Your task to perform on an android device: Open Youtube and go to "Your channel" Image 0: 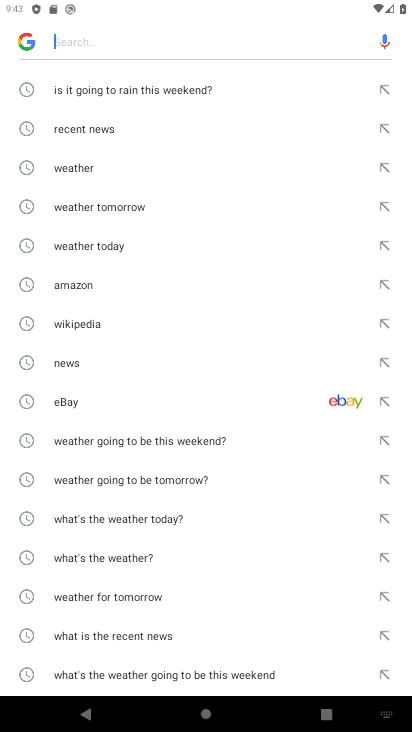
Step 0: press home button
Your task to perform on an android device: Open Youtube and go to "Your channel" Image 1: 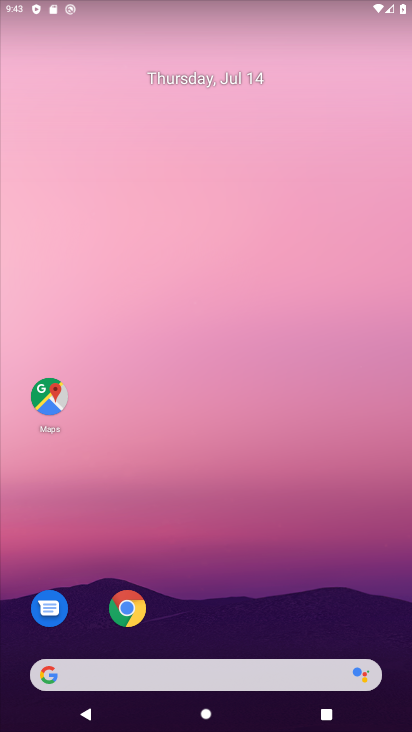
Step 1: drag from (231, 606) to (213, 5)
Your task to perform on an android device: Open Youtube and go to "Your channel" Image 2: 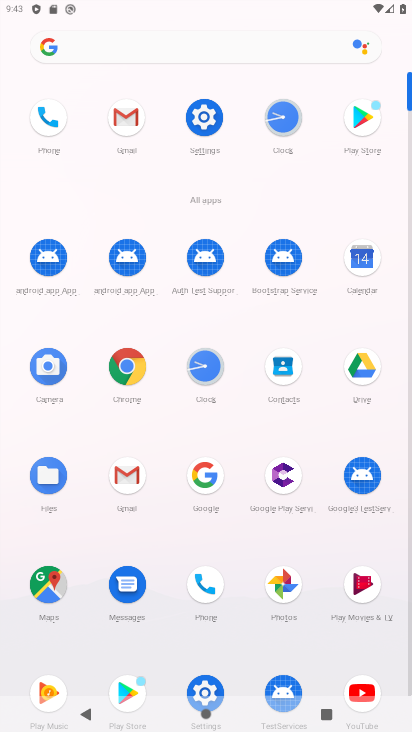
Step 2: click (360, 677)
Your task to perform on an android device: Open Youtube and go to "Your channel" Image 3: 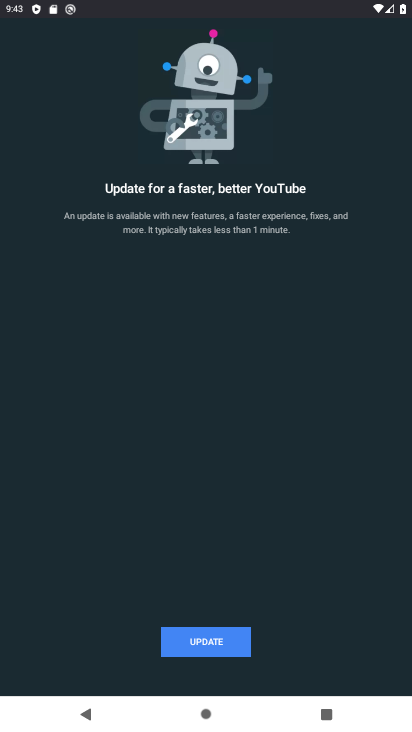
Step 3: click (214, 644)
Your task to perform on an android device: Open Youtube and go to "Your channel" Image 4: 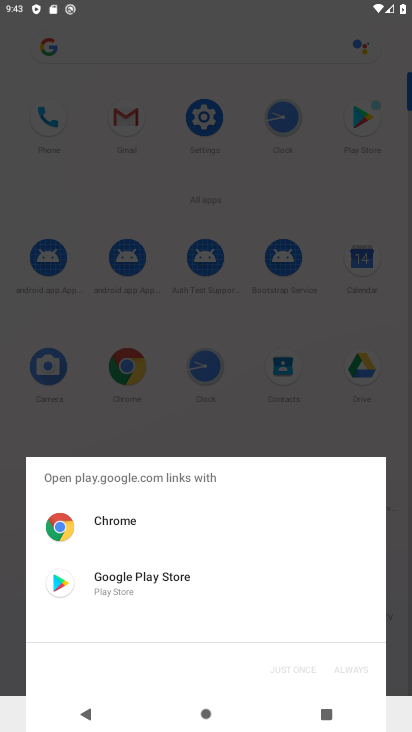
Step 4: click (189, 582)
Your task to perform on an android device: Open Youtube and go to "Your channel" Image 5: 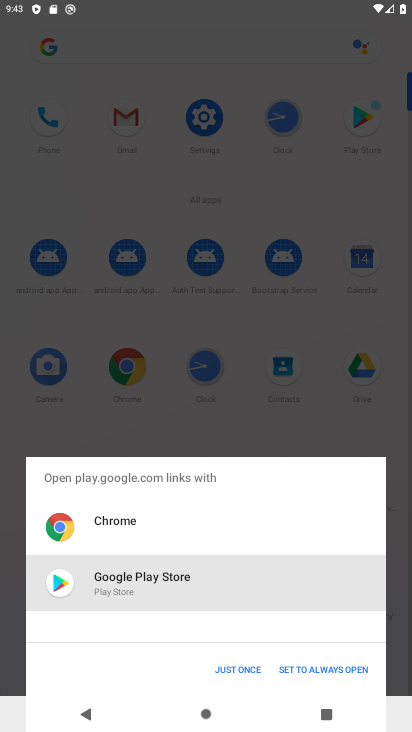
Step 5: click (220, 667)
Your task to perform on an android device: Open Youtube and go to "Your channel" Image 6: 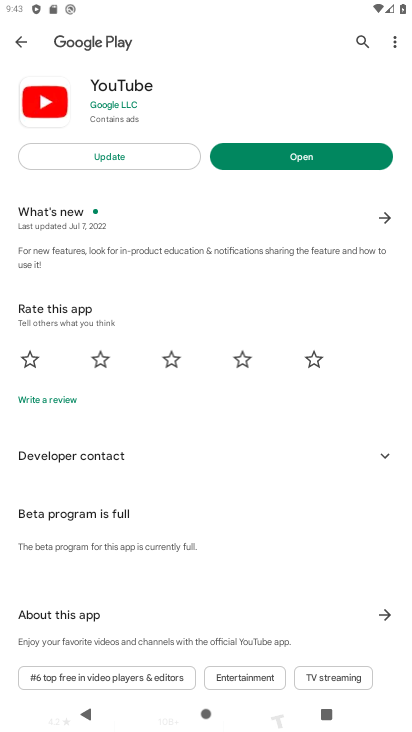
Step 6: click (152, 143)
Your task to perform on an android device: Open Youtube and go to "Your channel" Image 7: 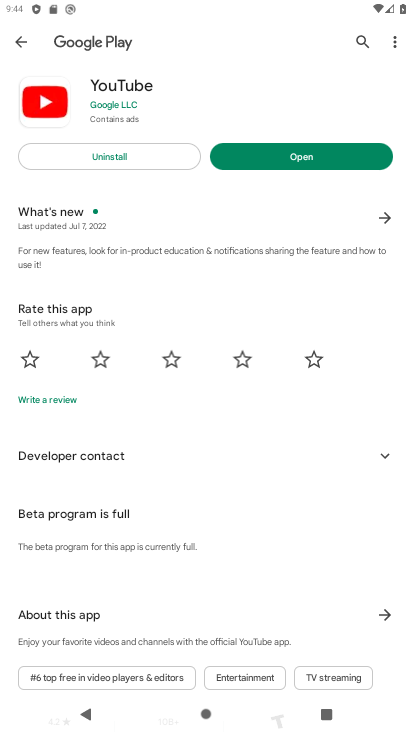
Step 7: click (323, 158)
Your task to perform on an android device: Open Youtube and go to "Your channel" Image 8: 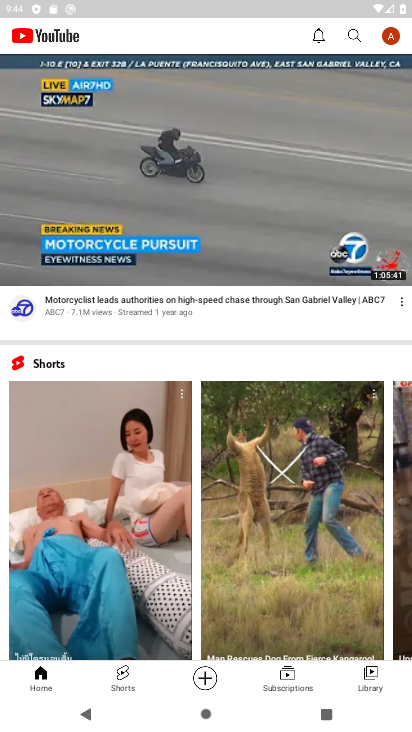
Step 8: click (387, 38)
Your task to perform on an android device: Open Youtube and go to "Your channel" Image 9: 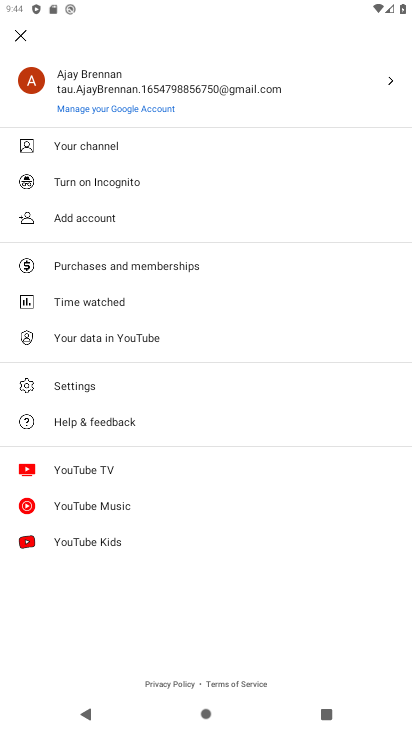
Step 9: click (110, 147)
Your task to perform on an android device: Open Youtube and go to "Your channel" Image 10: 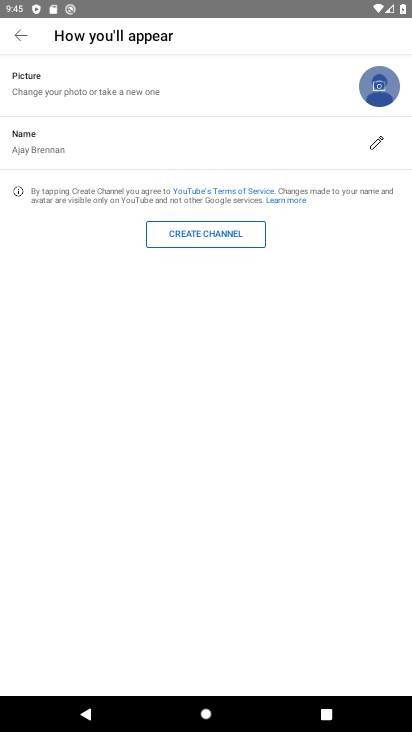
Step 10: task complete